Your task to perform on an android device: allow notifications from all sites in the chrome app Image 0: 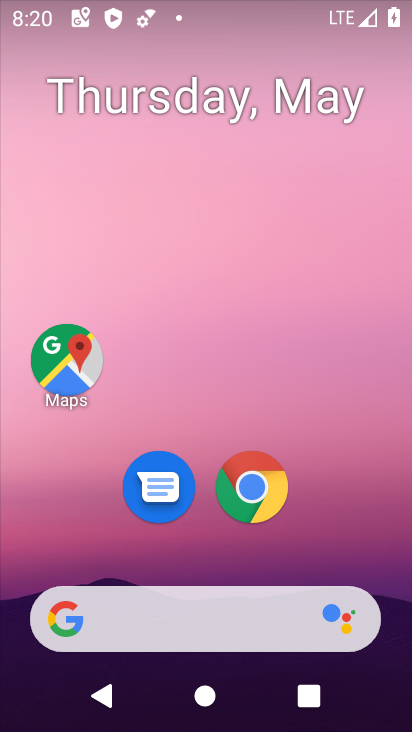
Step 0: drag from (208, 501) to (354, 35)
Your task to perform on an android device: allow notifications from all sites in the chrome app Image 1: 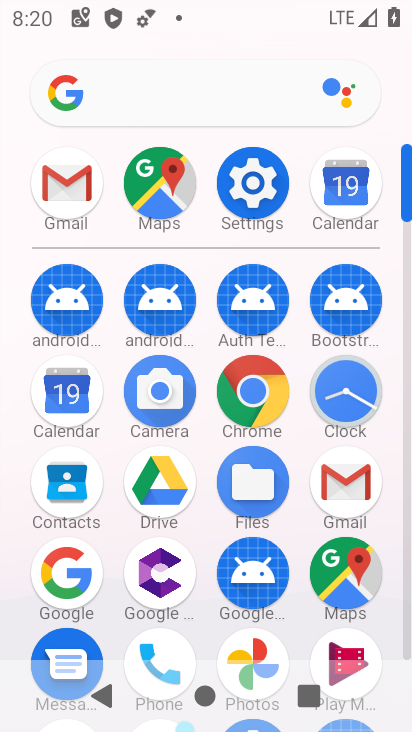
Step 1: click (245, 388)
Your task to perform on an android device: allow notifications from all sites in the chrome app Image 2: 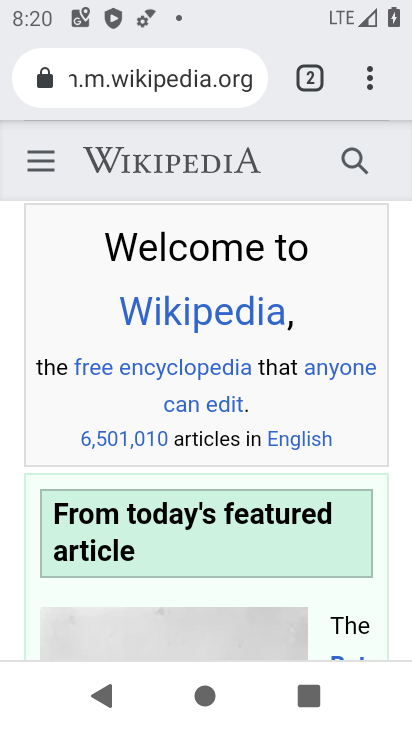
Step 2: drag from (248, 560) to (250, 198)
Your task to perform on an android device: allow notifications from all sites in the chrome app Image 3: 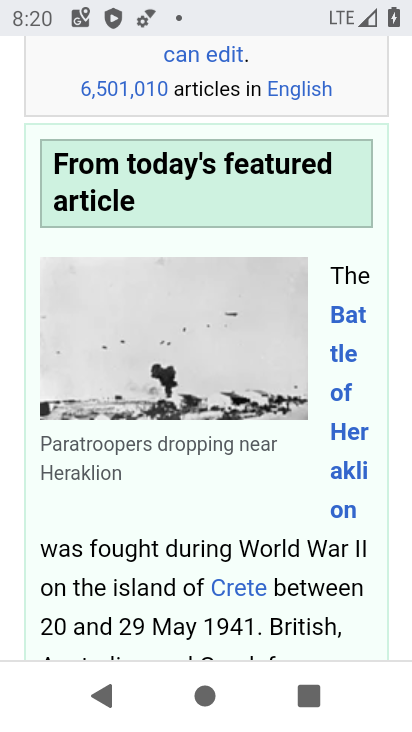
Step 3: drag from (107, 135) to (175, 607)
Your task to perform on an android device: allow notifications from all sites in the chrome app Image 4: 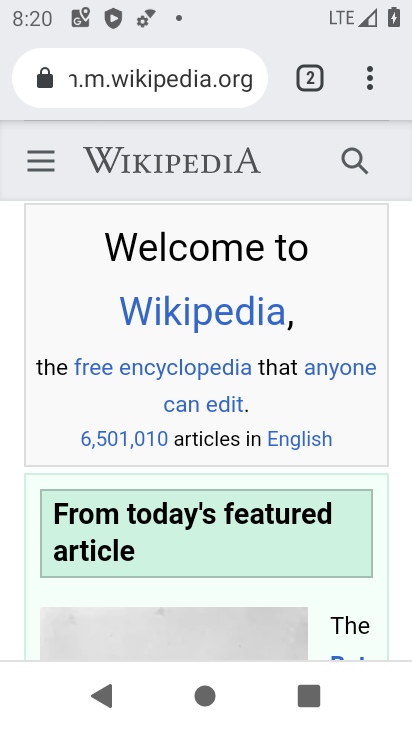
Step 4: click (384, 59)
Your task to perform on an android device: allow notifications from all sites in the chrome app Image 5: 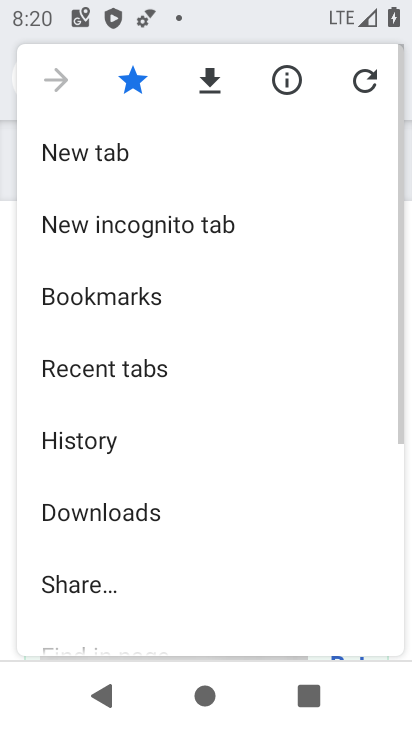
Step 5: drag from (184, 560) to (247, 93)
Your task to perform on an android device: allow notifications from all sites in the chrome app Image 6: 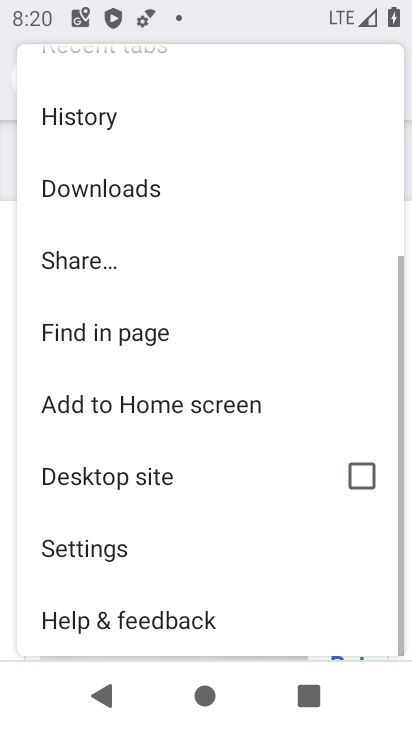
Step 6: click (131, 547)
Your task to perform on an android device: allow notifications from all sites in the chrome app Image 7: 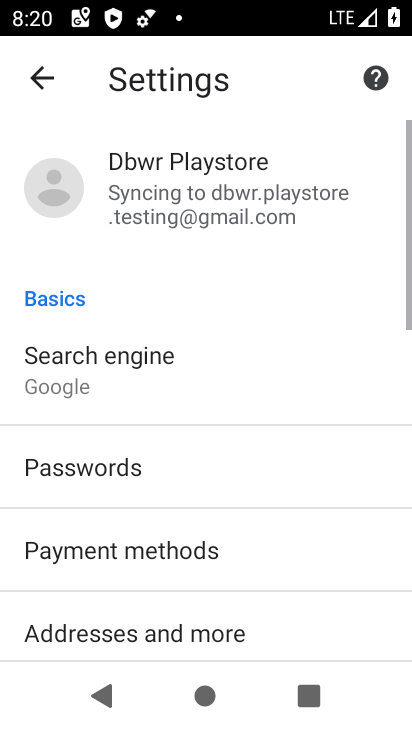
Step 7: drag from (144, 567) to (182, 205)
Your task to perform on an android device: allow notifications from all sites in the chrome app Image 8: 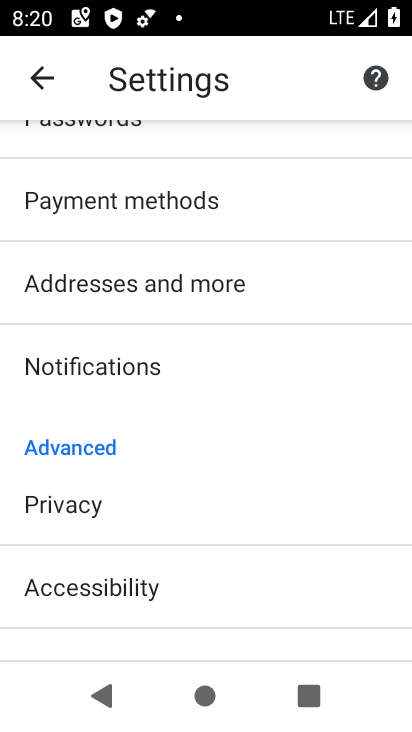
Step 8: drag from (201, 619) to (210, 206)
Your task to perform on an android device: allow notifications from all sites in the chrome app Image 9: 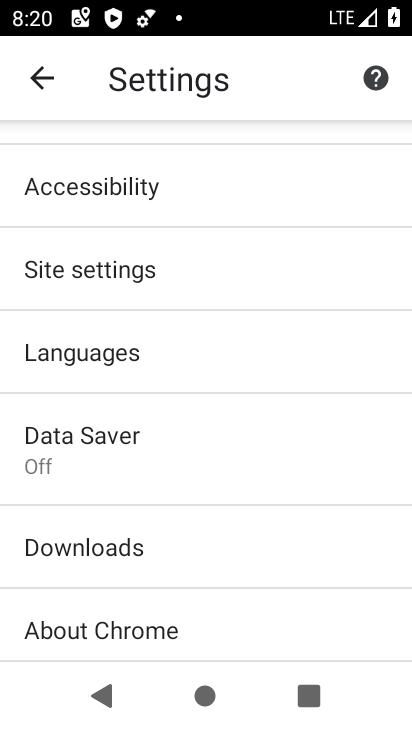
Step 9: click (114, 283)
Your task to perform on an android device: allow notifications from all sites in the chrome app Image 10: 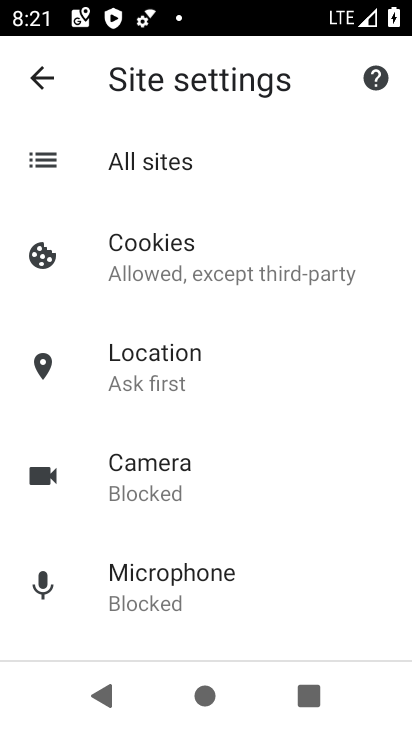
Step 10: drag from (236, 478) to (283, 120)
Your task to perform on an android device: allow notifications from all sites in the chrome app Image 11: 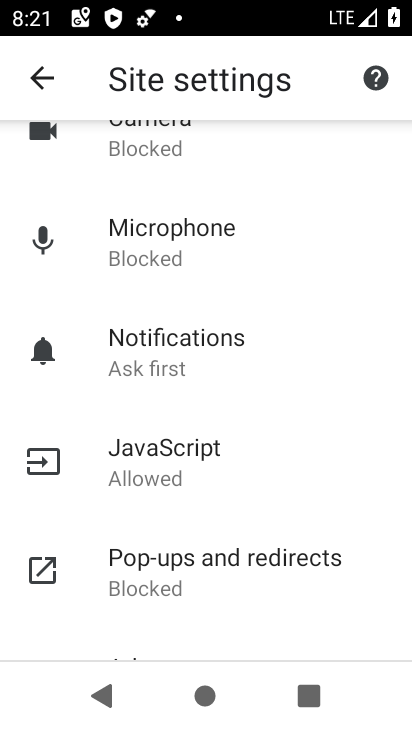
Step 11: click (212, 353)
Your task to perform on an android device: allow notifications from all sites in the chrome app Image 12: 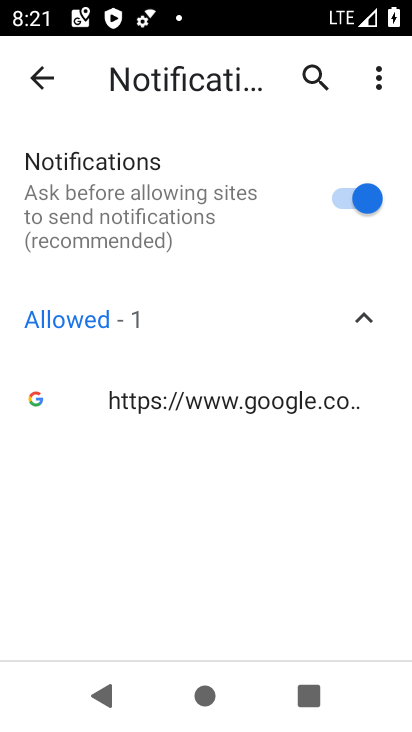
Step 12: task complete